Your task to perform on an android device: star an email in the gmail app Image 0: 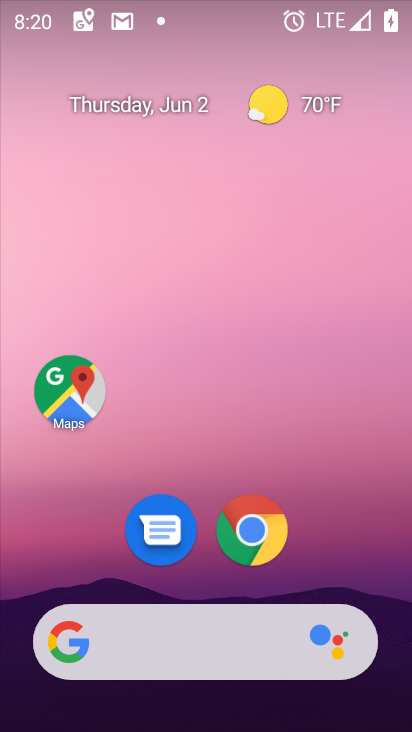
Step 0: drag from (183, 596) to (181, 393)
Your task to perform on an android device: star an email in the gmail app Image 1: 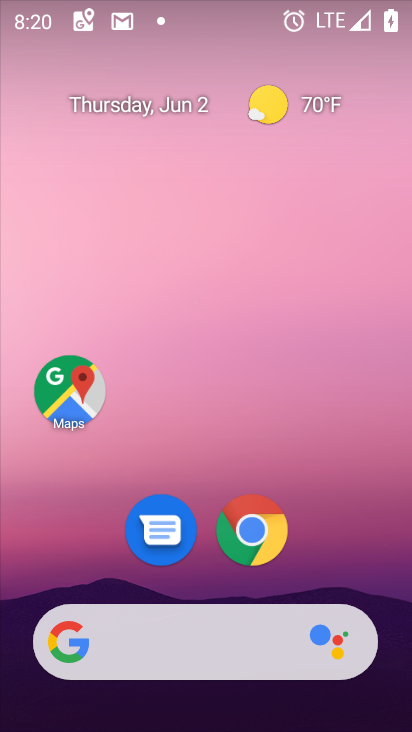
Step 1: drag from (201, 589) to (171, 253)
Your task to perform on an android device: star an email in the gmail app Image 2: 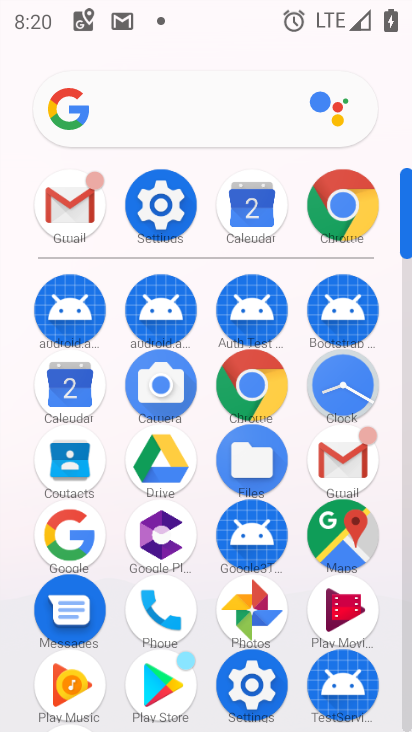
Step 2: click (73, 222)
Your task to perform on an android device: star an email in the gmail app Image 3: 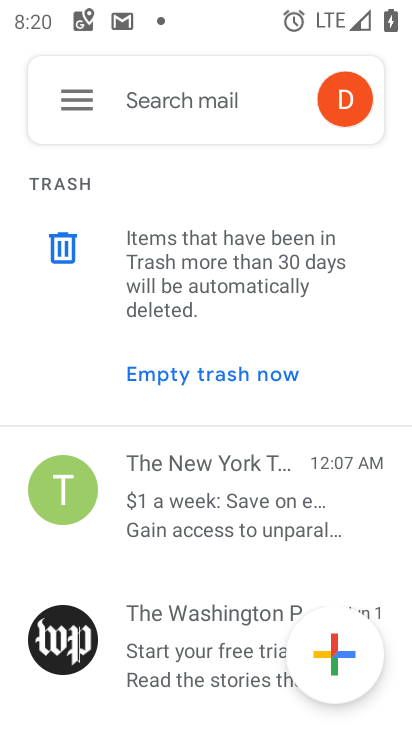
Step 3: drag from (205, 623) to (185, 361)
Your task to perform on an android device: star an email in the gmail app Image 4: 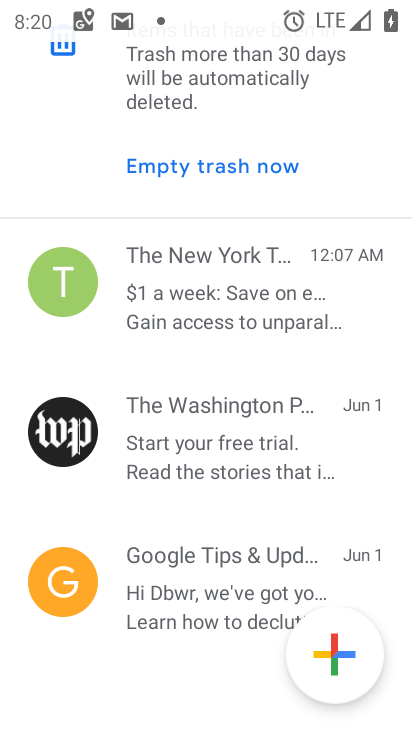
Step 4: drag from (160, 154) to (253, 502)
Your task to perform on an android device: star an email in the gmail app Image 5: 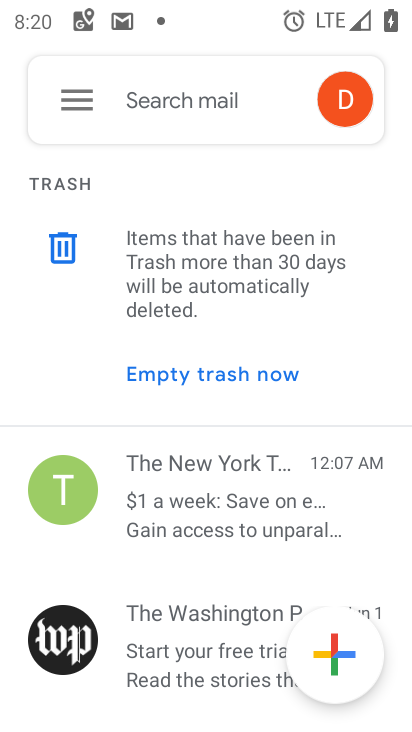
Step 5: click (73, 116)
Your task to perform on an android device: star an email in the gmail app Image 6: 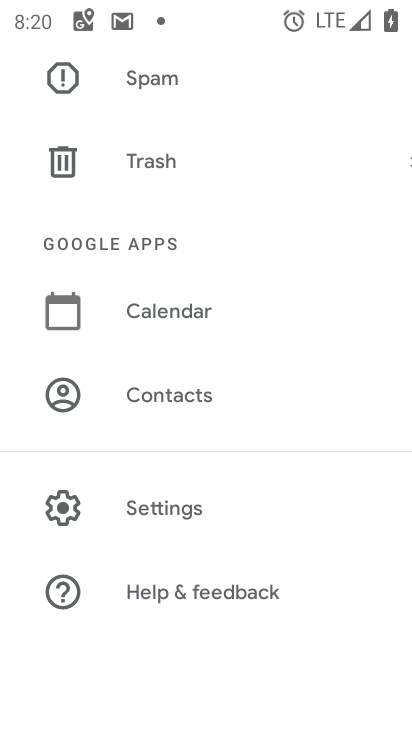
Step 6: drag from (127, 88) to (229, 551)
Your task to perform on an android device: star an email in the gmail app Image 7: 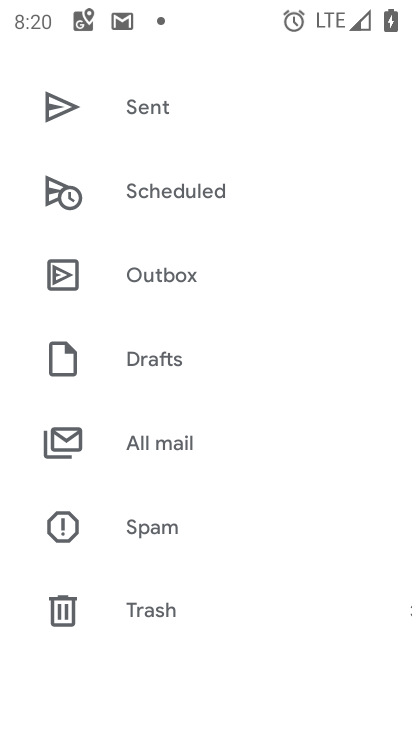
Step 7: drag from (171, 127) to (223, 549)
Your task to perform on an android device: star an email in the gmail app Image 8: 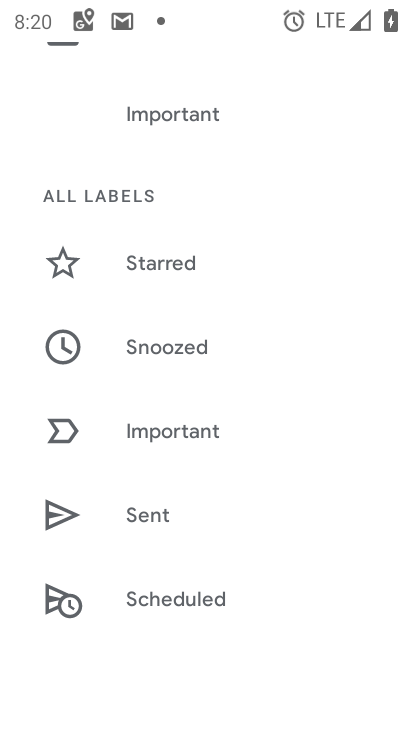
Step 8: drag from (153, 175) to (187, 510)
Your task to perform on an android device: star an email in the gmail app Image 9: 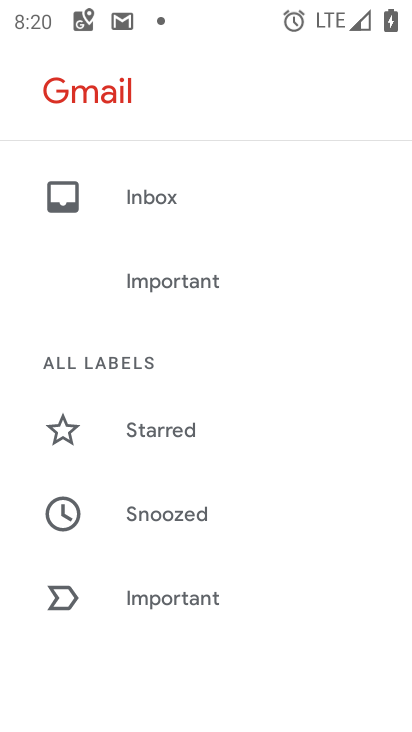
Step 9: click (147, 206)
Your task to perform on an android device: star an email in the gmail app Image 10: 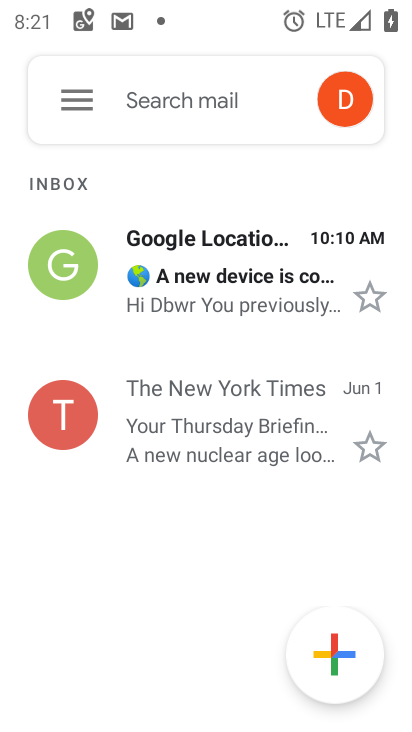
Step 10: click (364, 298)
Your task to perform on an android device: star an email in the gmail app Image 11: 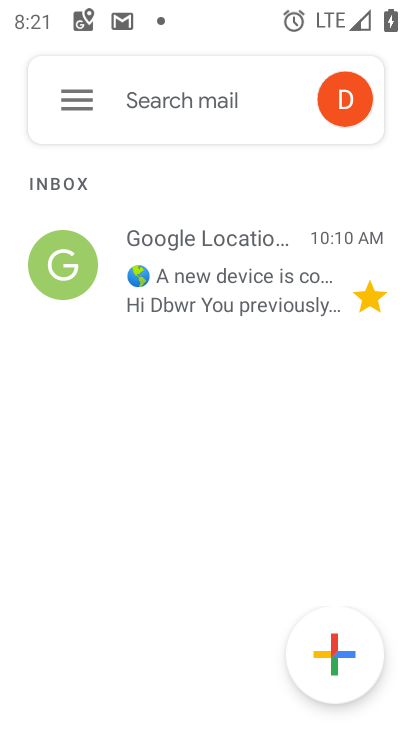
Step 11: task complete